Your task to perform on an android device: check battery use Image 0: 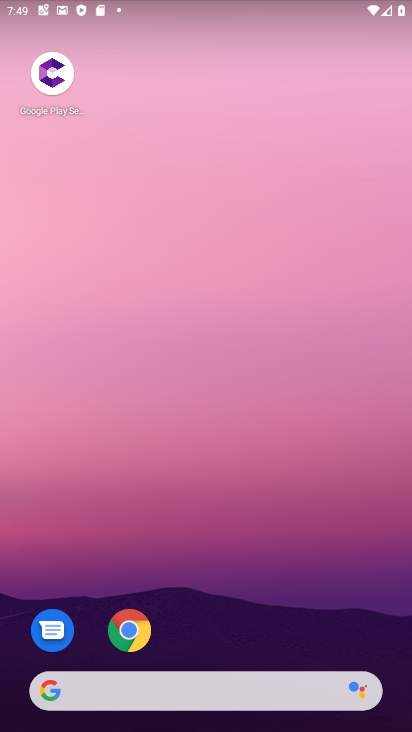
Step 0: drag from (272, 569) to (230, 93)
Your task to perform on an android device: check battery use Image 1: 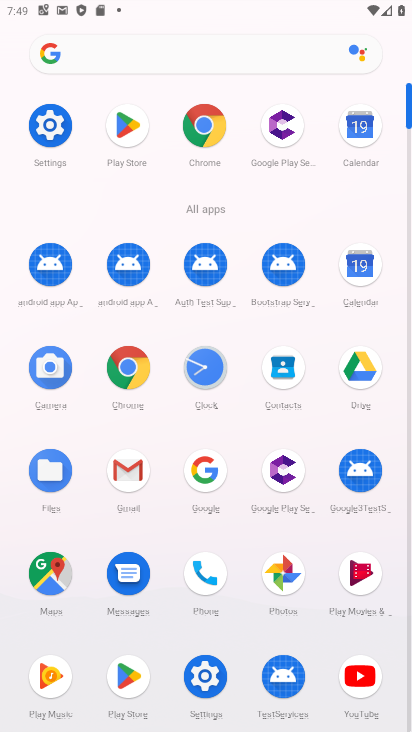
Step 1: click (35, 117)
Your task to perform on an android device: check battery use Image 2: 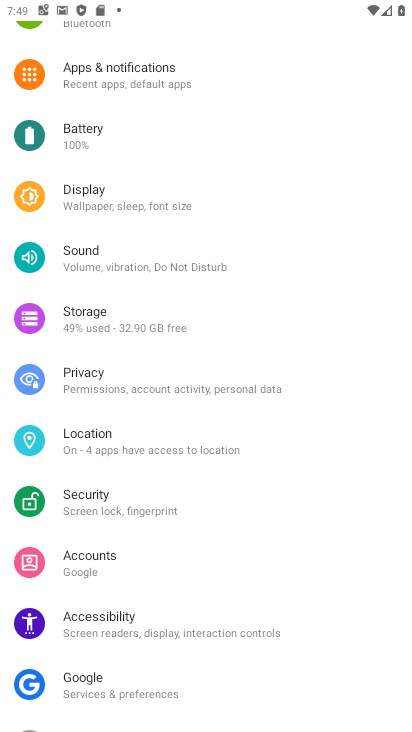
Step 2: click (79, 146)
Your task to perform on an android device: check battery use Image 3: 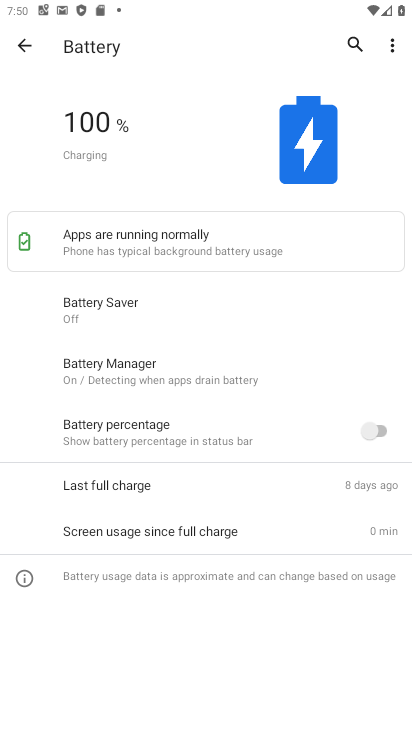
Step 3: click (389, 41)
Your task to perform on an android device: check battery use Image 4: 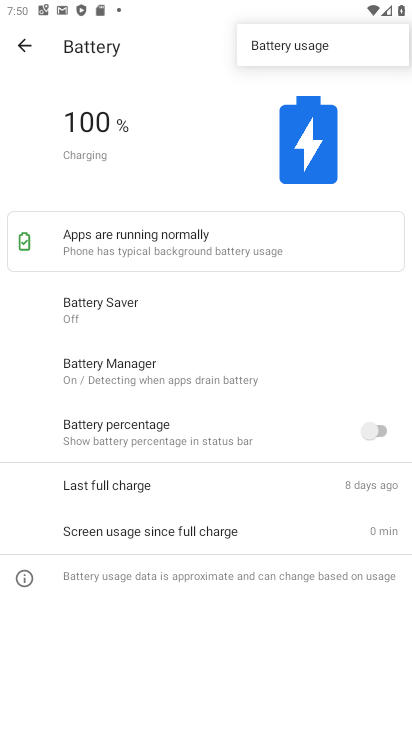
Step 4: click (287, 48)
Your task to perform on an android device: check battery use Image 5: 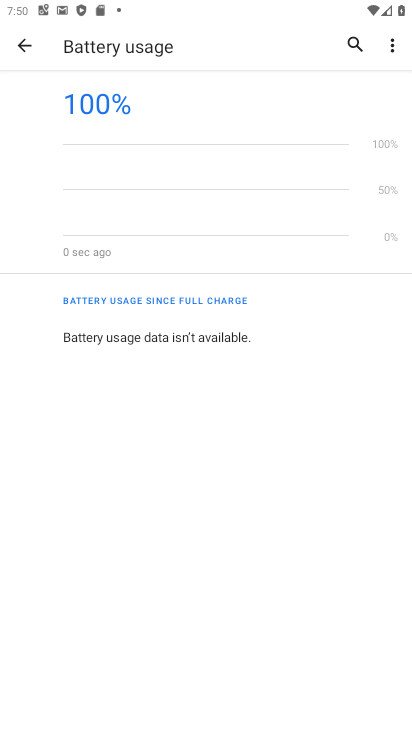
Step 5: task complete